Your task to perform on an android device: Go to notification settings Image 0: 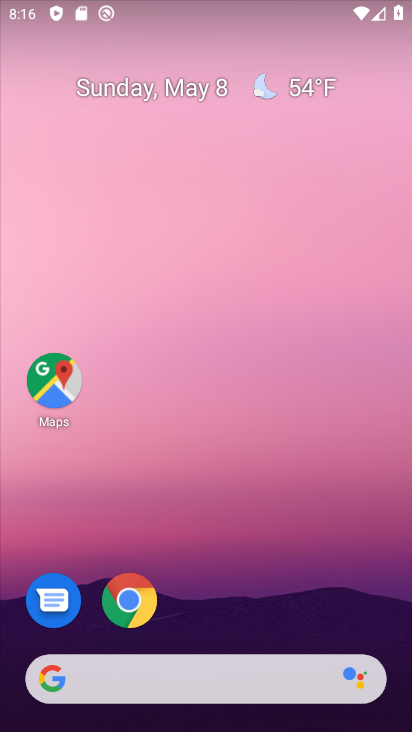
Step 0: drag from (256, 561) to (227, 255)
Your task to perform on an android device: Go to notification settings Image 1: 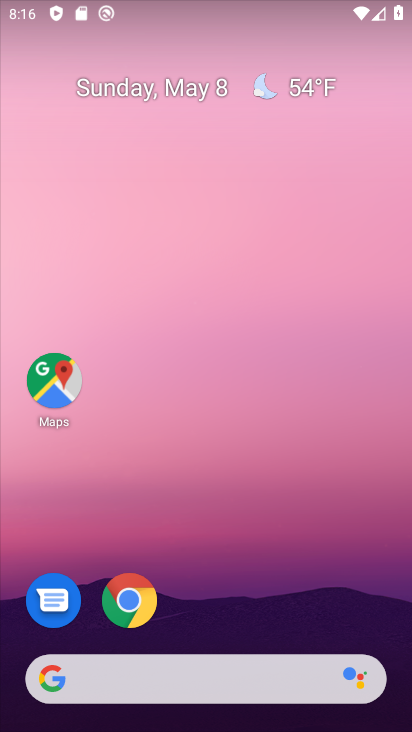
Step 1: drag from (267, 527) to (265, 127)
Your task to perform on an android device: Go to notification settings Image 2: 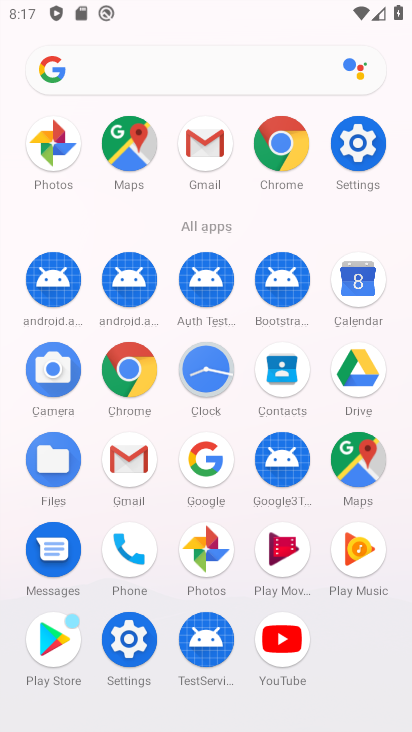
Step 2: click (360, 170)
Your task to perform on an android device: Go to notification settings Image 3: 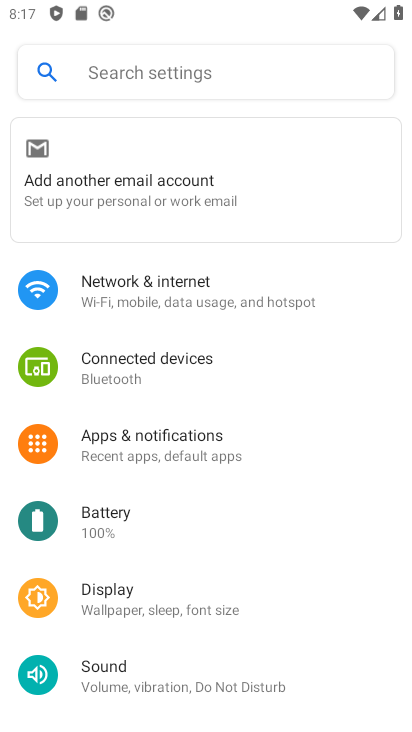
Step 3: click (161, 450)
Your task to perform on an android device: Go to notification settings Image 4: 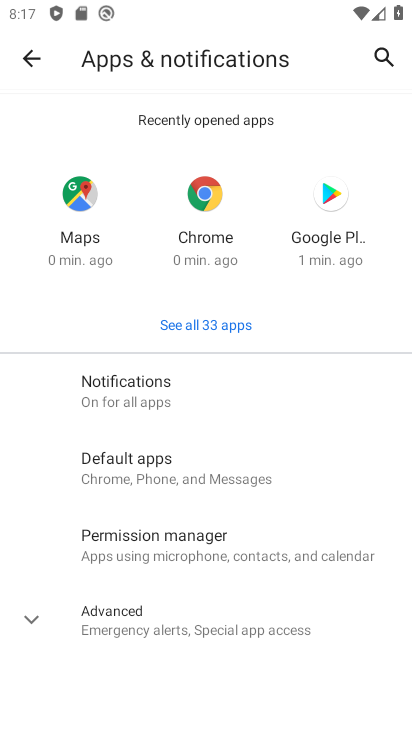
Step 4: click (156, 397)
Your task to perform on an android device: Go to notification settings Image 5: 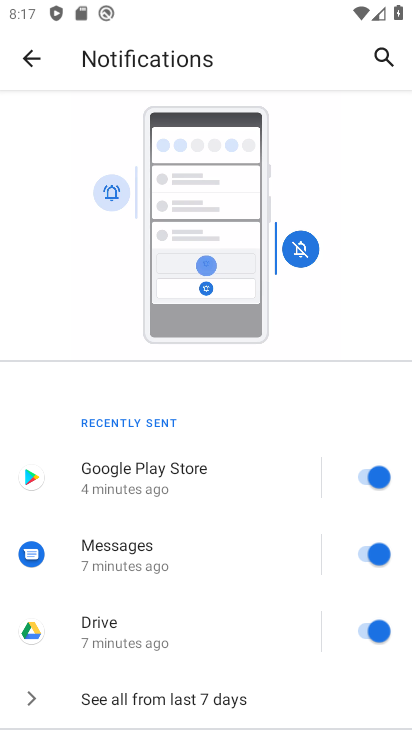
Step 5: drag from (221, 690) to (220, 468)
Your task to perform on an android device: Go to notification settings Image 6: 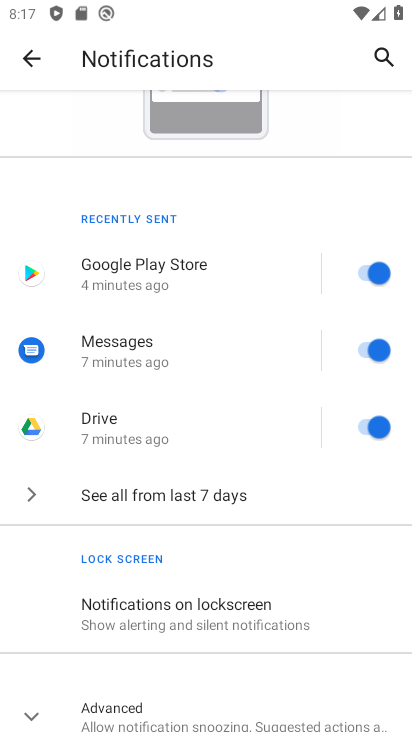
Step 6: click (187, 627)
Your task to perform on an android device: Go to notification settings Image 7: 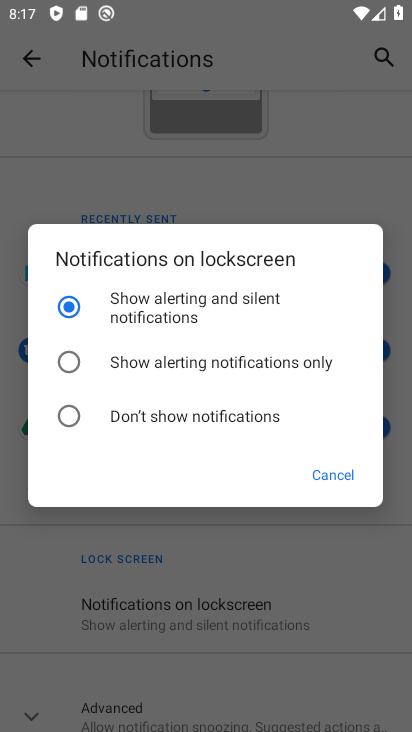
Step 7: task complete